Your task to perform on an android device: Open the map Image 0: 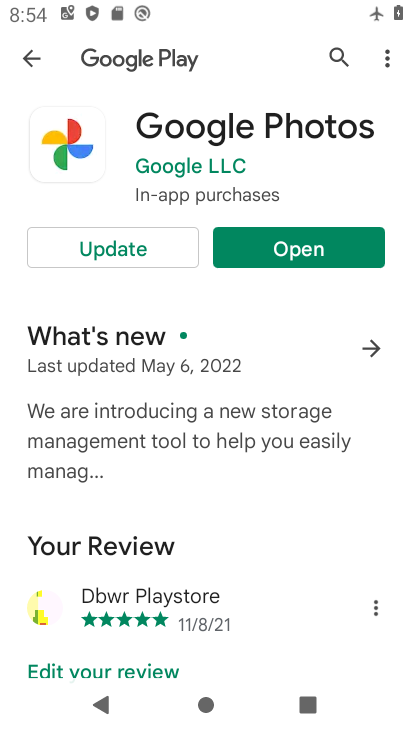
Step 0: press home button
Your task to perform on an android device: Open the map Image 1: 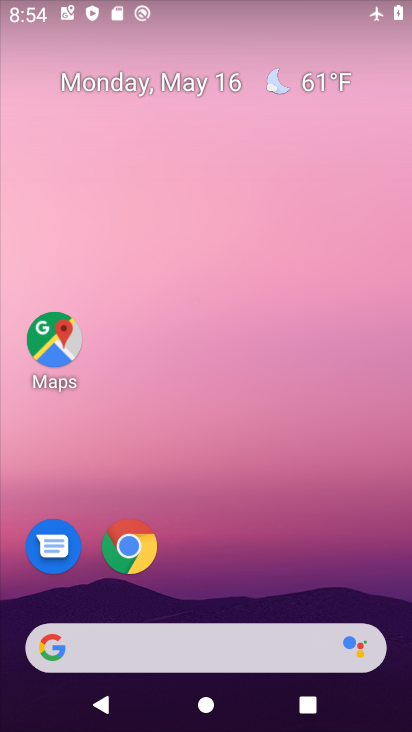
Step 1: click (43, 340)
Your task to perform on an android device: Open the map Image 2: 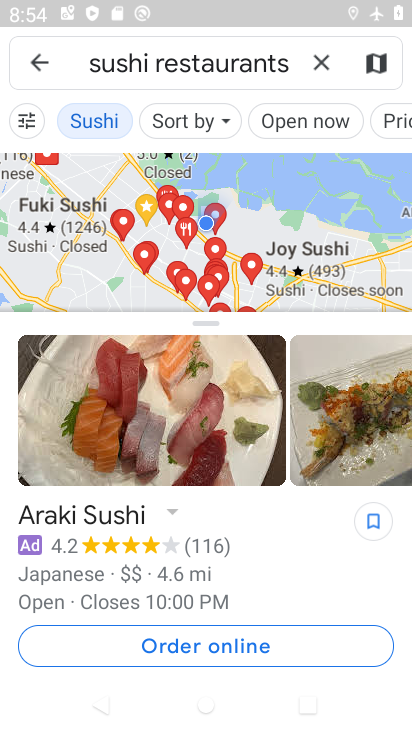
Step 2: click (41, 64)
Your task to perform on an android device: Open the map Image 3: 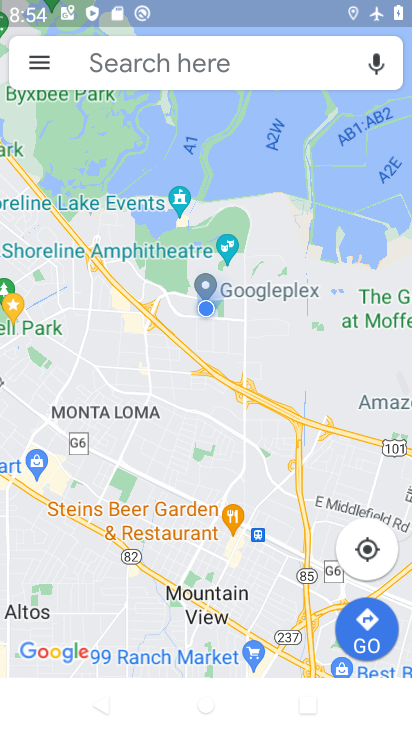
Step 3: task complete